Your task to perform on an android device: turn on wifi Image 0: 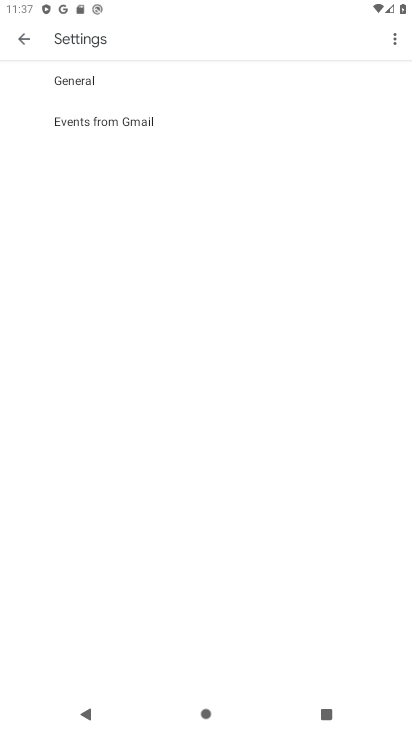
Step 0: press home button
Your task to perform on an android device: turn on wifi Image 1: 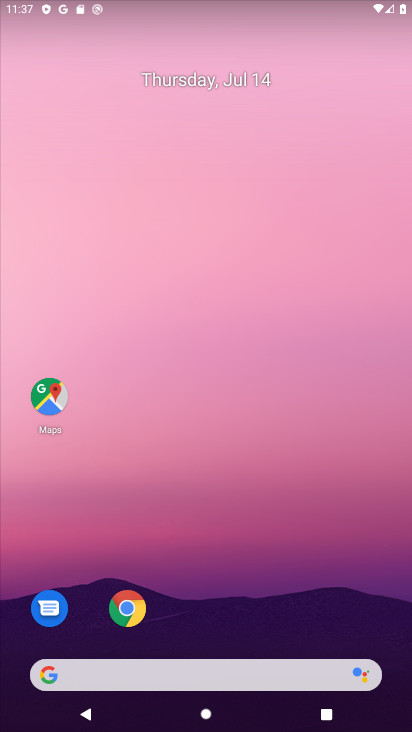
Step 1: drag from (278, 504) to (312, 15)
Your task to perform on an android device: turn on wifi Image 2: 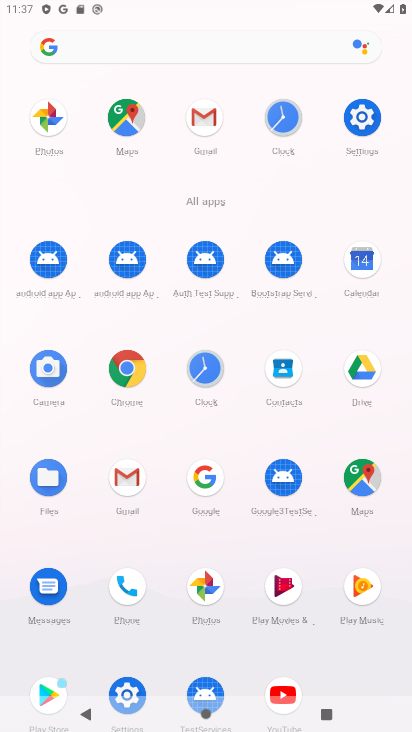
Step 2: click (359, 120)
Your task to perform on an android device: turn on wifi Image 3: 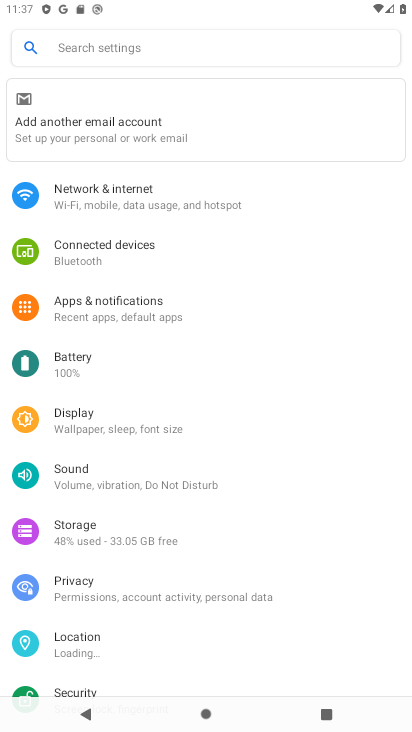
Step 3: click (149, 195)
Your task to perform on an android device: turn on wifi Image 4: 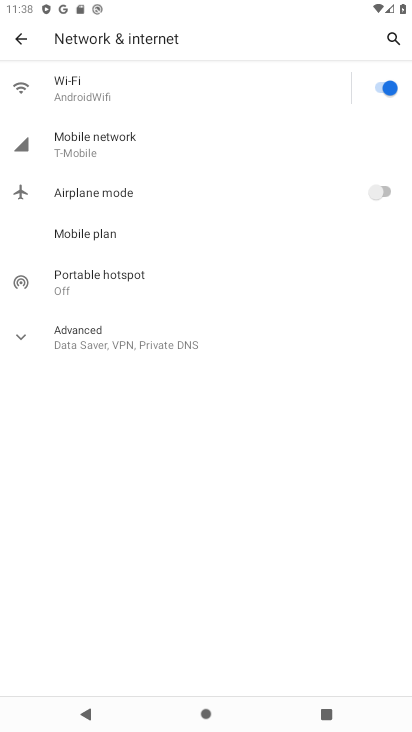
Step 4: task complete